Your task to perform on an android device: Turn off the flashlight Image 0: 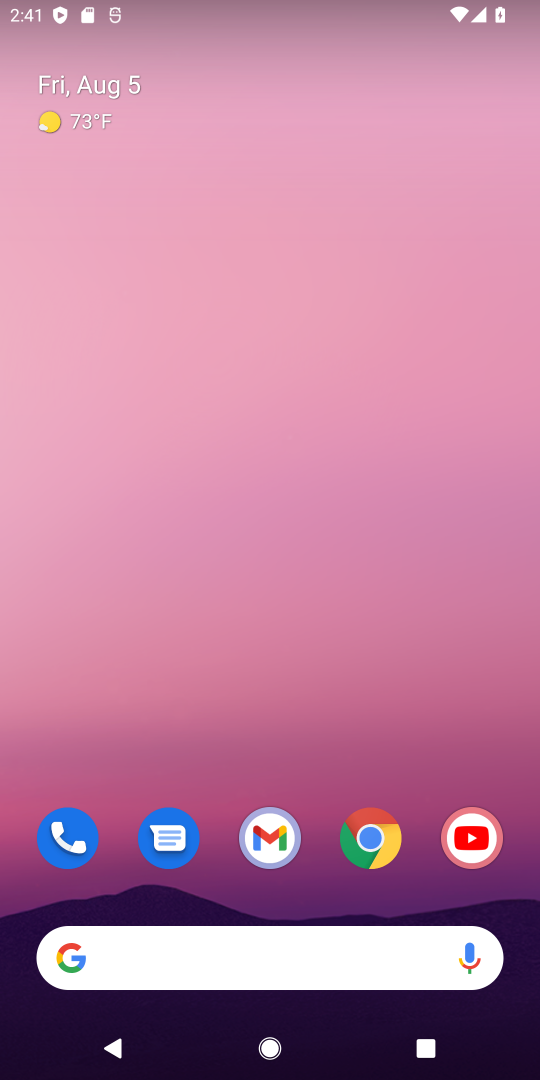
Step 0: drag from (382, 864) to (333, 0)
Your task to perform on an android device: Turn off the flashlight Image 1: 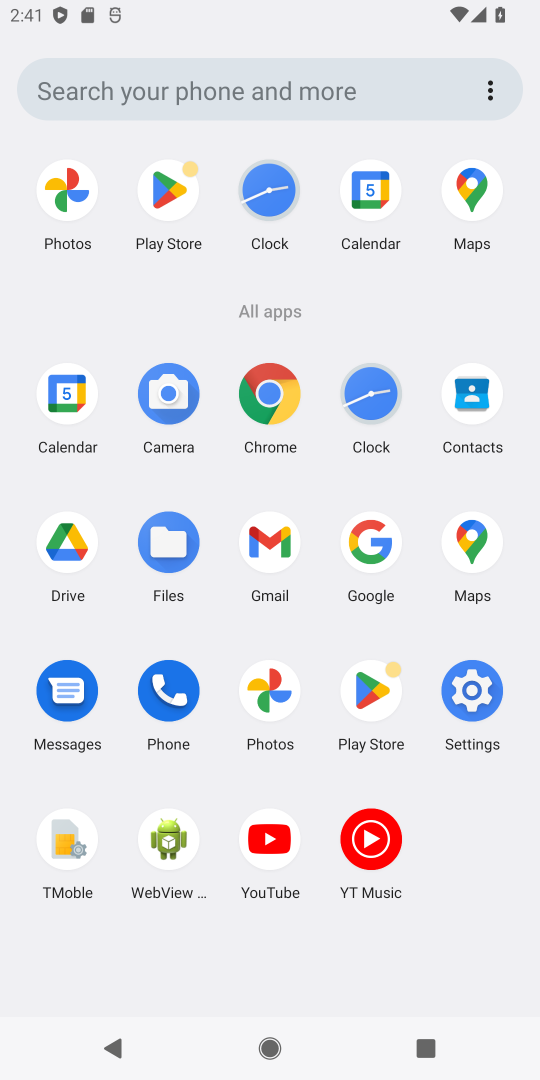
Step 1: click (479, 679)
Your task to perform on an android device: Turn off the flashlight Image 2: 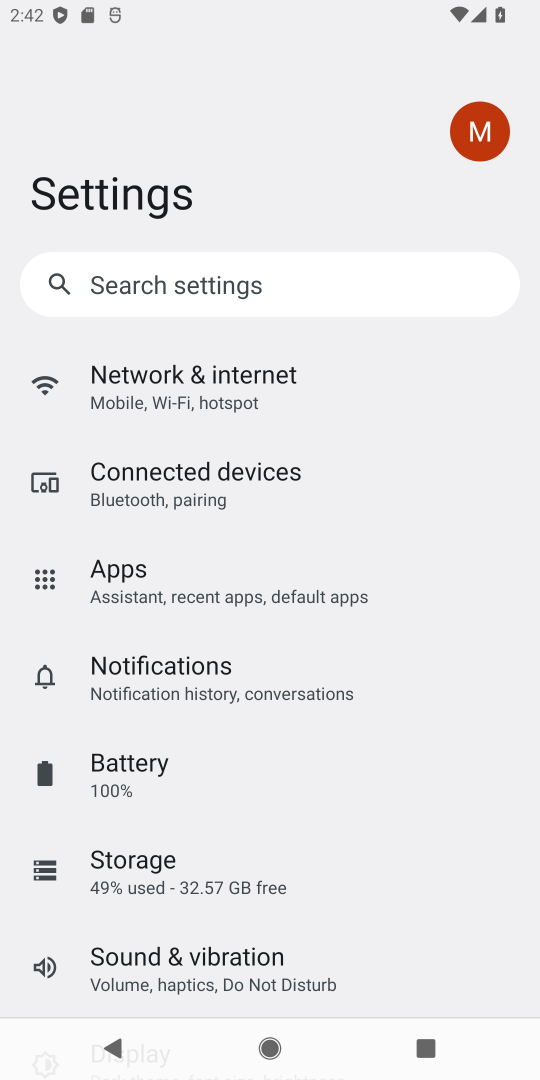
Step 2: task complete